Your task to perform on an android device: turn off wifi Image 0: 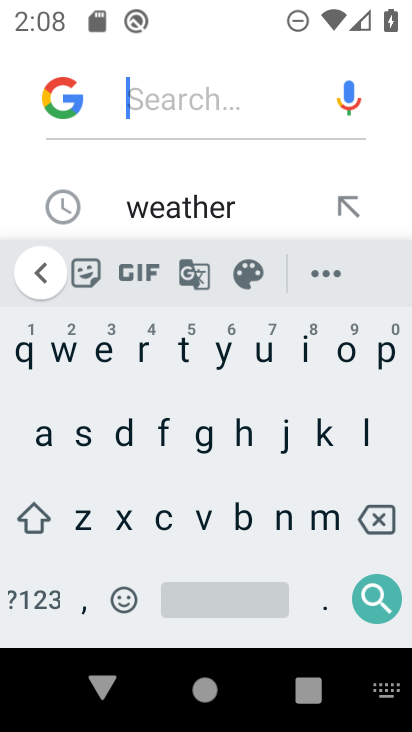
Step 0: press back button
Your task to perform on an android device: turn off wifi Image 1: 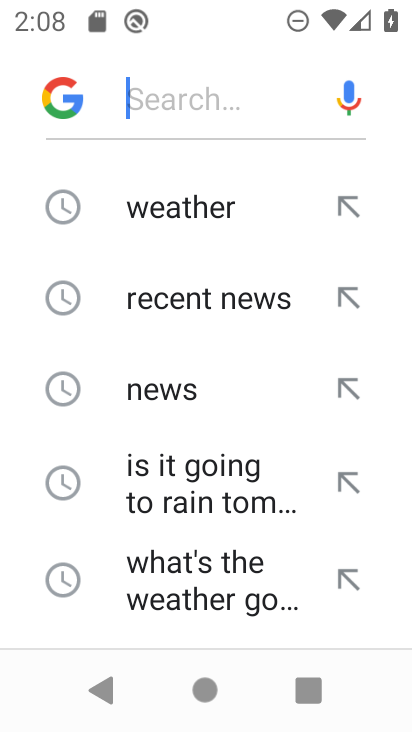
Step 1: press back button
Your task to perform on an android device: turn off wifi Image 2: 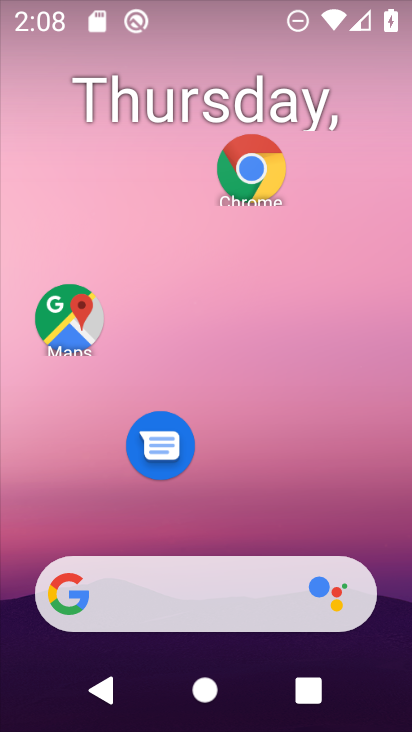
Step 2: drag from (278, 587) to (273, 213)
Your task to perform on an android device: turn off wifi Image 3: 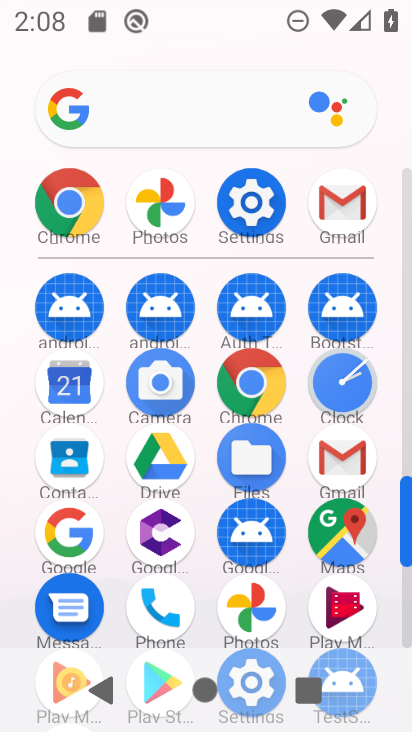
Step 3: click (232, 218)
Your task to perform on an android device: turn off wifi Image 4: 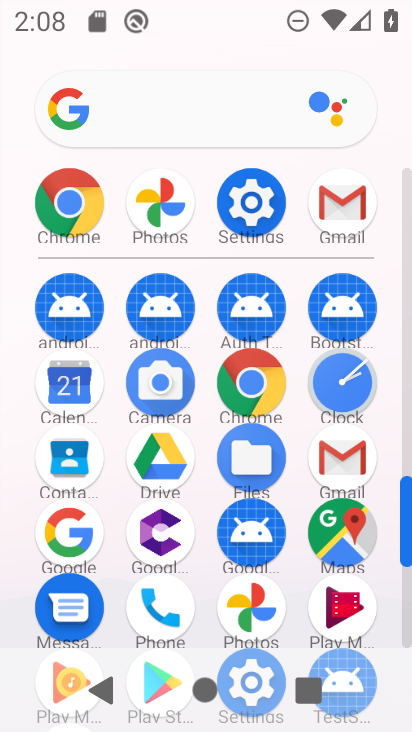
Step 4: click (251, 205)
Your task to perform on an android device: turn off wifi Image 5: 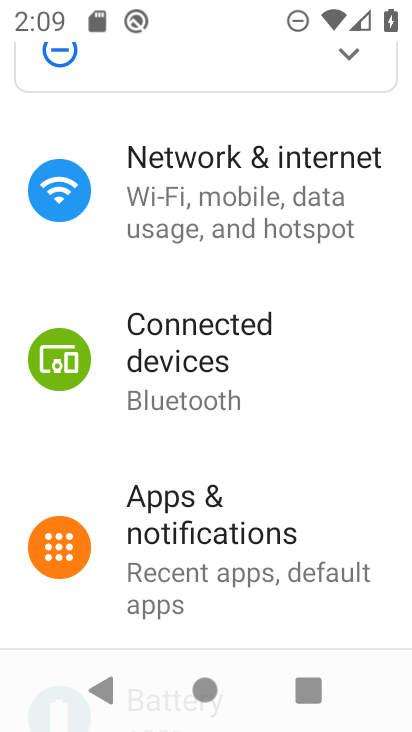
Step 5: click (208, 201)
Your task to perform on an android device: turn off wifi Image 6: 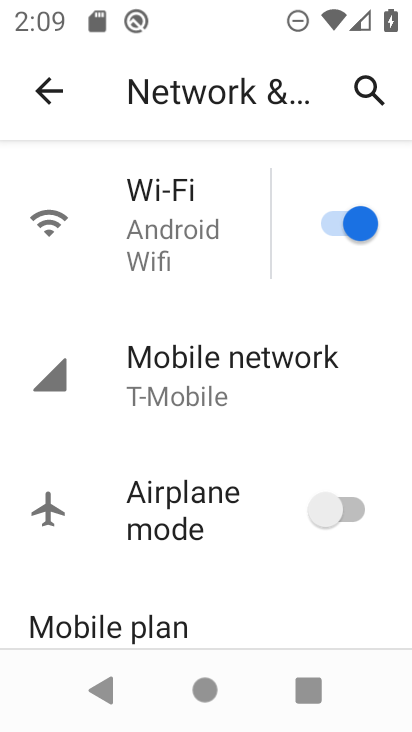
Step 6: click (208, 201)
Your task to perform on an android device: turn off wifi Image 7: 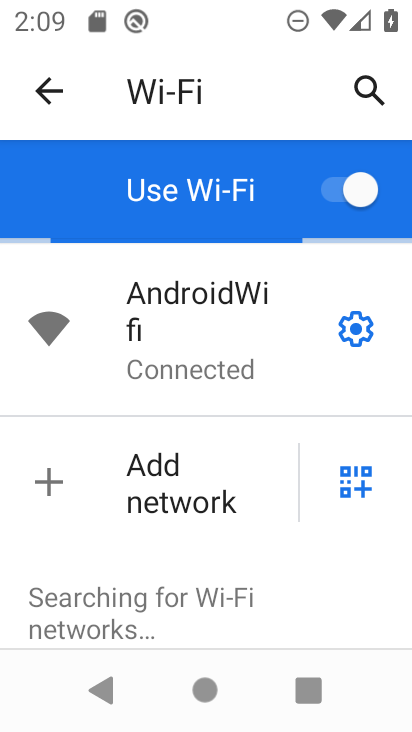
Step 7: click (356, 192)
Your task to perform on an android device: turn off wifi Image 8: 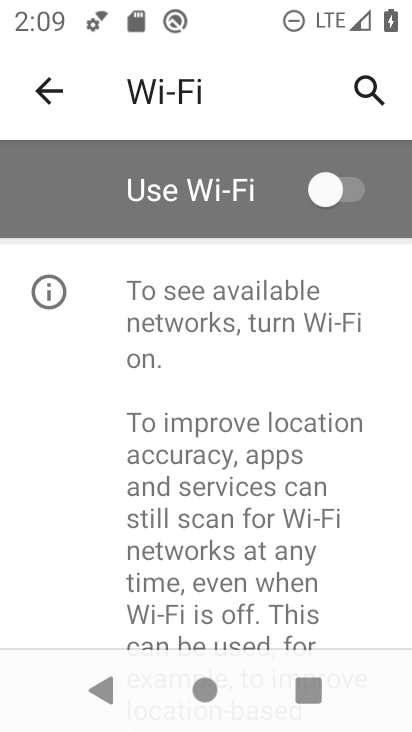
Step 8: task complete